Your task to perform on an android device: Open settings Image 0: 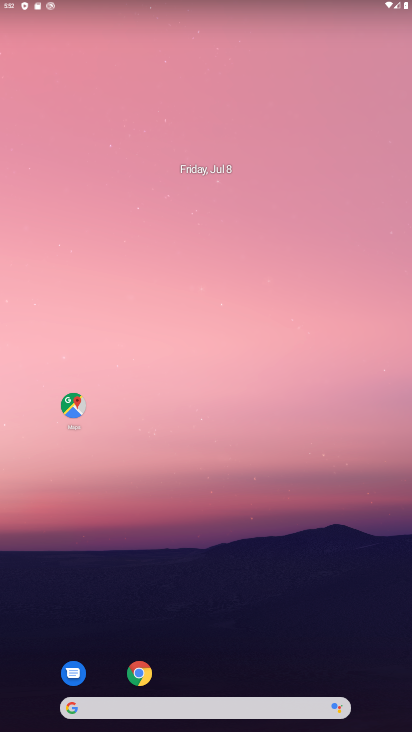
Step 0: press home button
Your task to perform on an android device: Open settings Image 1: 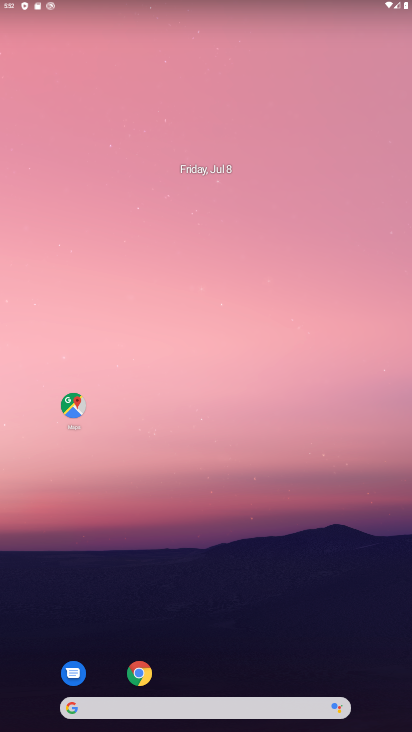
Step 1: drag from (274, 655) to (349, 36)
Your task to perform on an android device: Open settings Image 2: 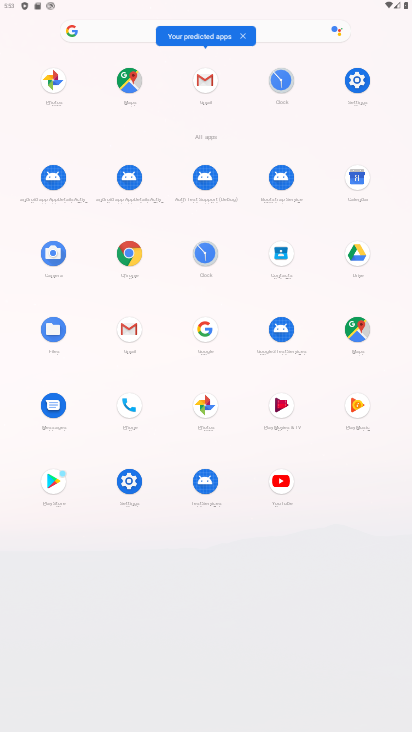
Step 2: click (355, 95)
Your task to perform on an android device: Open settings Image 3: 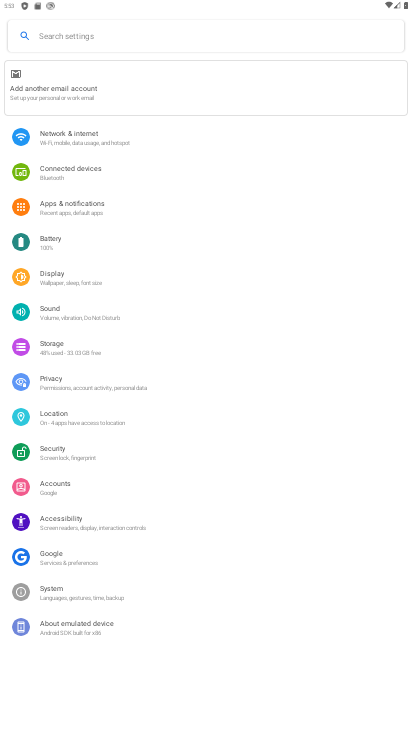
Step 3: task complete